Your task to perform on an android device: turn on notifications settings in the gmail app Image 0: 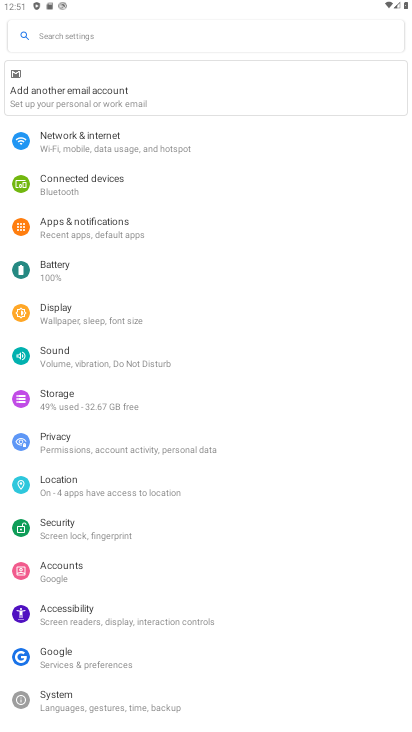
Step 0: press home button
Your task to perform on an android device: turn on notifications settings in the gmail app Image 1: 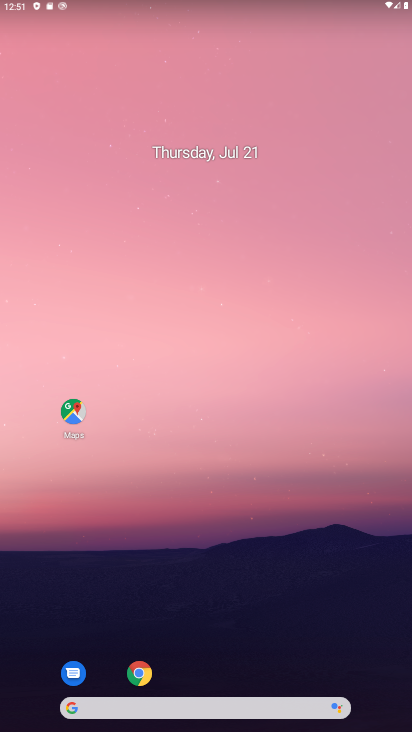
Step 1: drag from (175, 697) to (158, 229)
Your task to perform on an android device: turn on notifications settings in the gmail app Image 2: 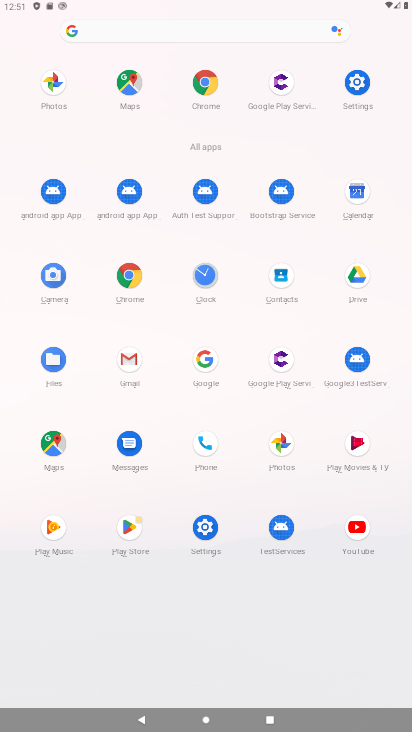
Step 2: click (211, 535)
Your task to perform on an android device: turn on notifications settings in the gmail app Image 3: 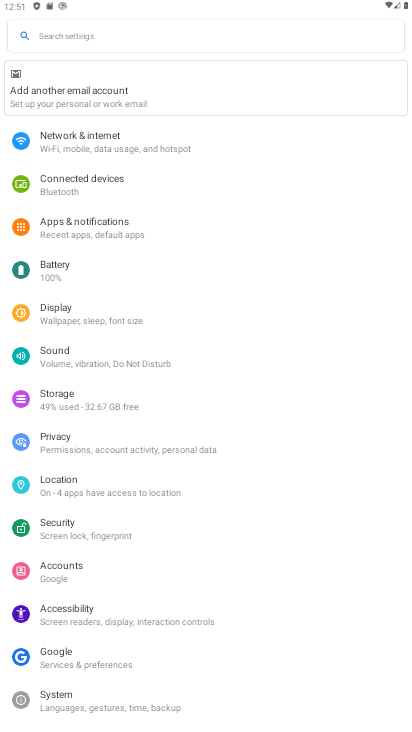
Step 3: press home button
Your task to perform on an android device: turn on notifications settings in the gmail app Image 4: 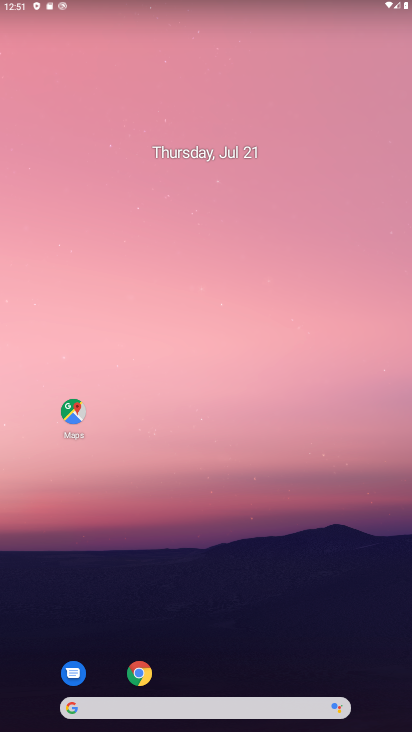
Step 4: drag from (209, 702) to (153, 139)
Your task to perform on an android device: turn on notifications settings in the gmail app Image 5: 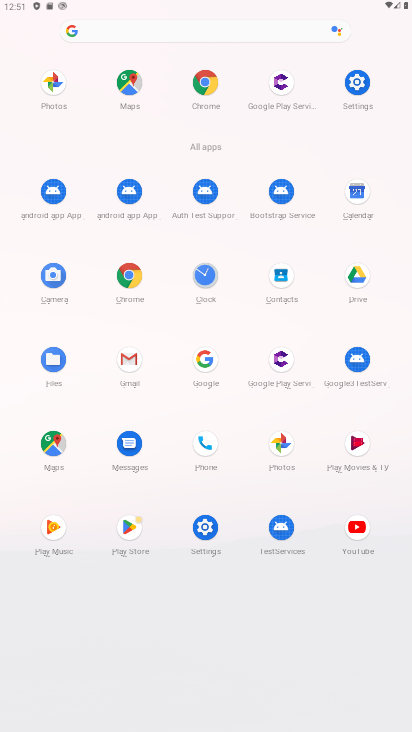
Step 5: click (128, 363)
Your task to perform on an android device: turn on notifications settings in the gmail app Image 6: 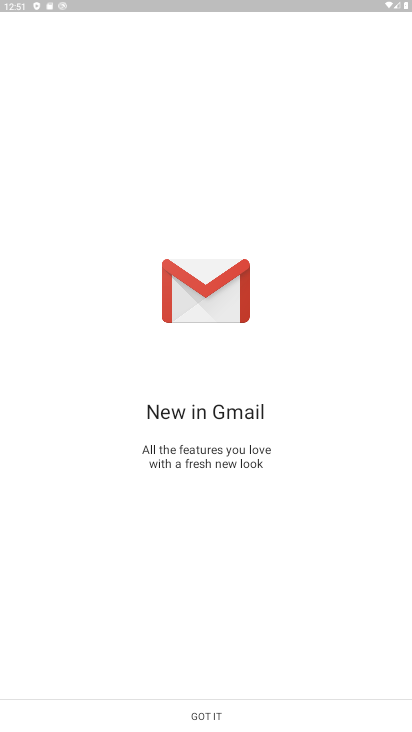
Step 6: click (200, 716)
Your task to perform on an android device: turn on notifications settings in the gmail app Image 7: 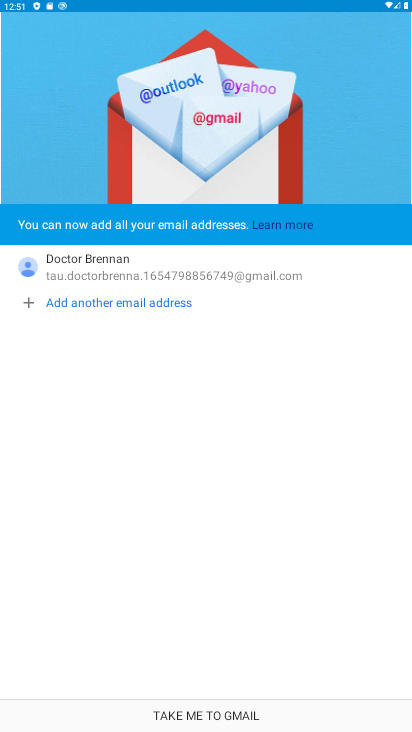
Step 7: click (200, 716)
Your task to perform on an android device: turn on notifications settings in the gmail app Image 8: 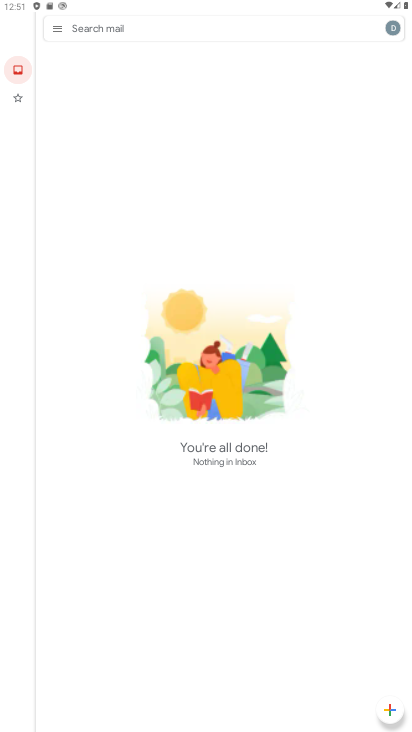
Step 8: click (54, 27)
Your task to perform on an android device: turn on notifications settings in the gmail app Image 9: 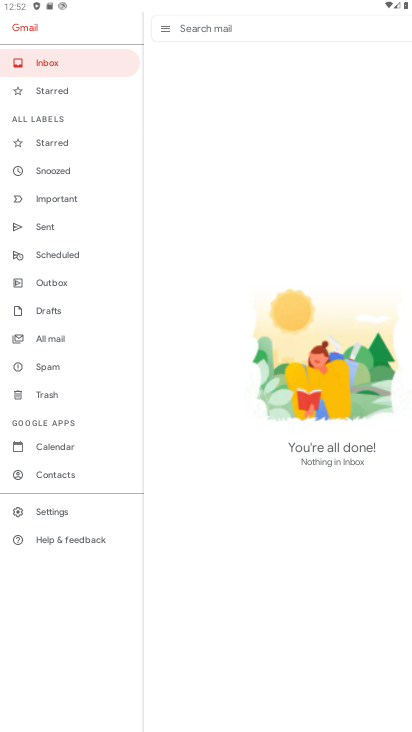
Step 9: click (51, 509)
Your task to perform on an android device: turn on notifications settings in the gmail app Image 10: 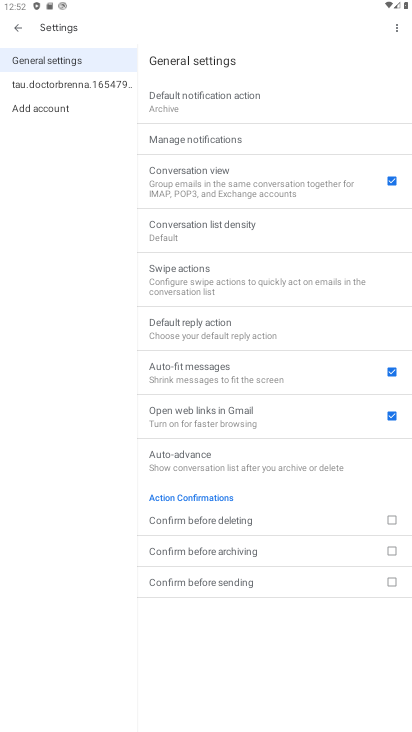
Step 10: click (69, 88)
Your task to perform on an android device: turn on notifications settings in the gmail app Image 11: 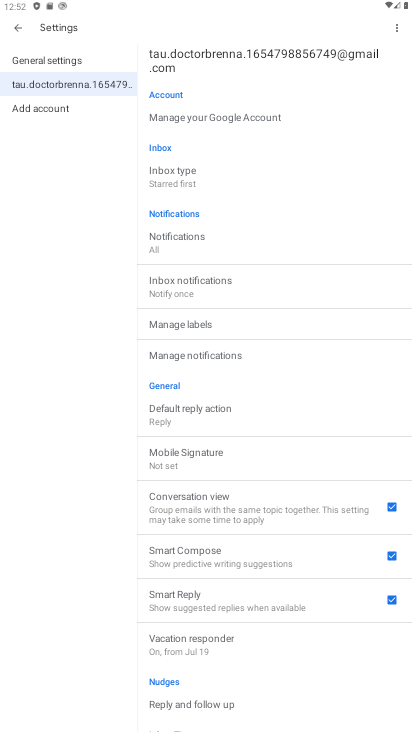
Step 11: click (216, 353)
Your task to perform on an android device: turn on notifications settings in the gmail app Image 12: 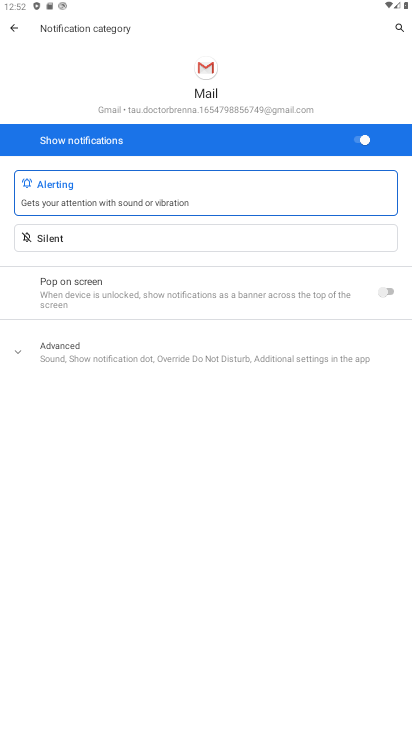
Step 12: task complete